Your task to perform on an android device: Toggle the flashlight Image 0: 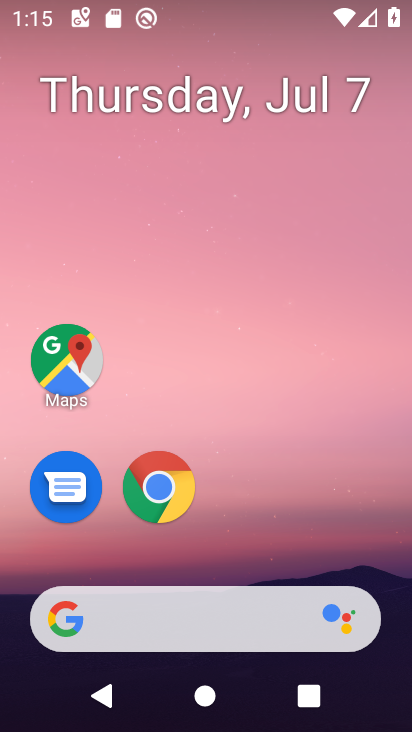
Step 0: drag from (233, 5) to (246, 352)
Your task to perform on an android device: Toggle the flashlight Image 1: 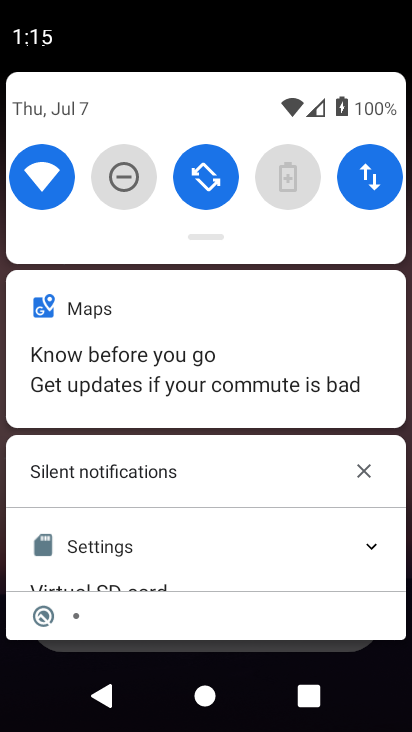
Step 1: drag from (248, 101) to (252, 348)
Your task to perform on an android device: Toggle the flashlight Image 2: 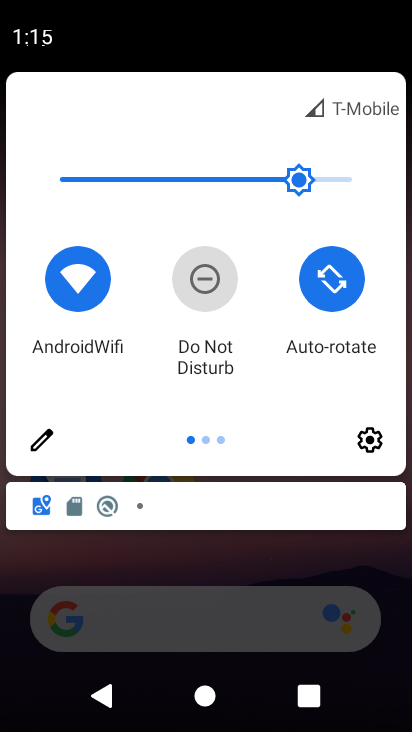
Step 2: click (44, 445)
Your task to perform on an android device: Toggle the flashlight Image 3: 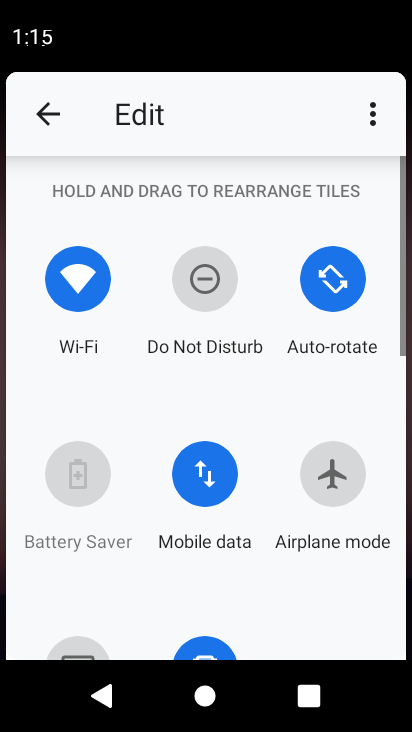
Step 3: task complete